Your task to perform on an android device: turn notification dots on Image 0: 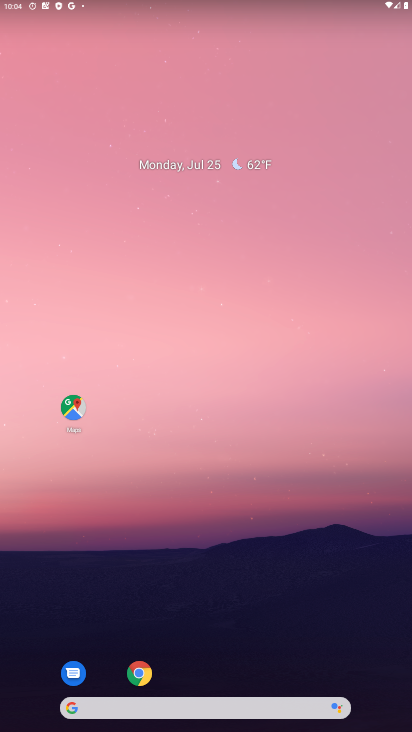
Step 0: drag from (182, 659) to (247, 130)
Your task to perform on an android device: turn notification dots on Image 1: 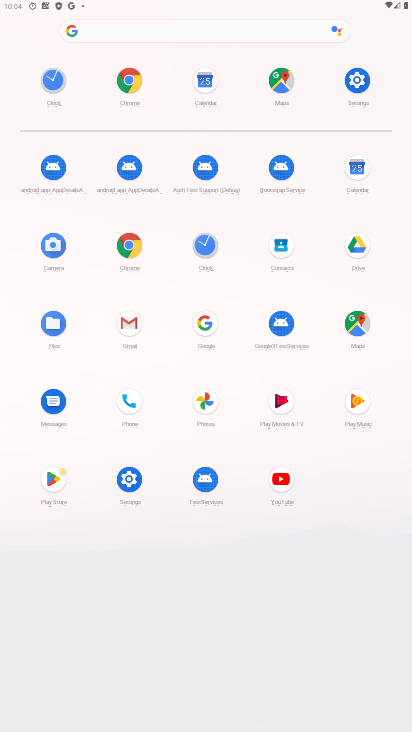
Step 1: click (120, 471)
Your task to perform on an android device: turn notification dots on Image 2: 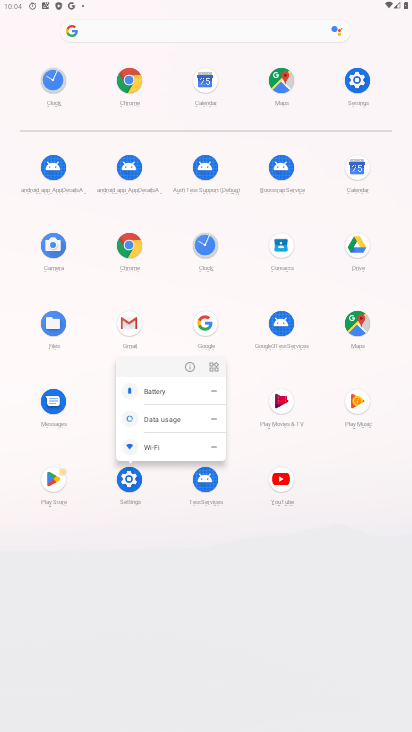
Step 2: click (190, 373)
Your task to perform on an android device: turn notification dots on Image 3: 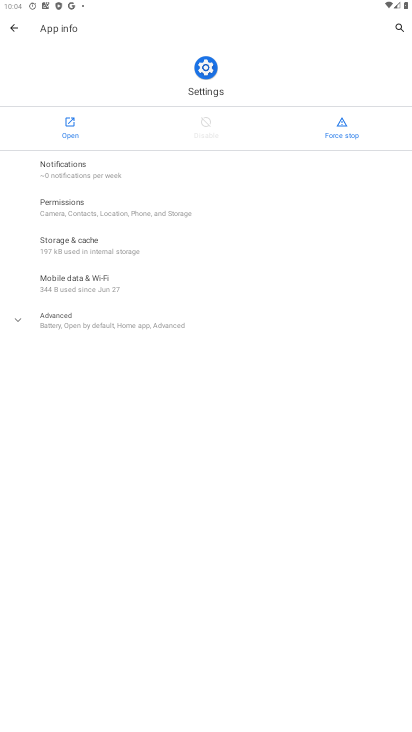
Step 3: click (51, 103)
Your task to perform on an android device: turn notification dots on Image 4: 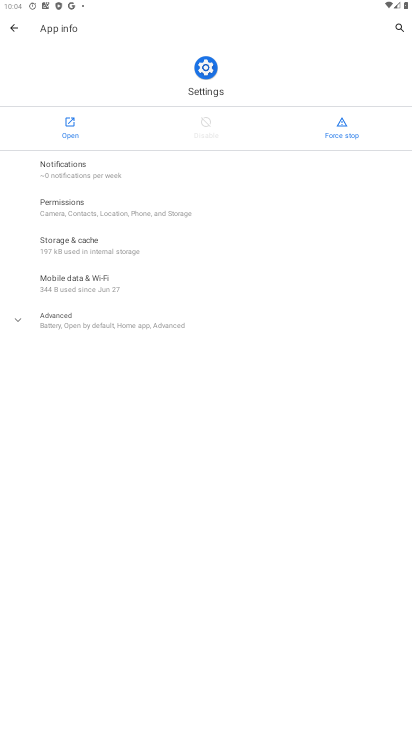
Step 4: click (71, 124)
Your task to perform on an android device: turn notification dots on Image 5: 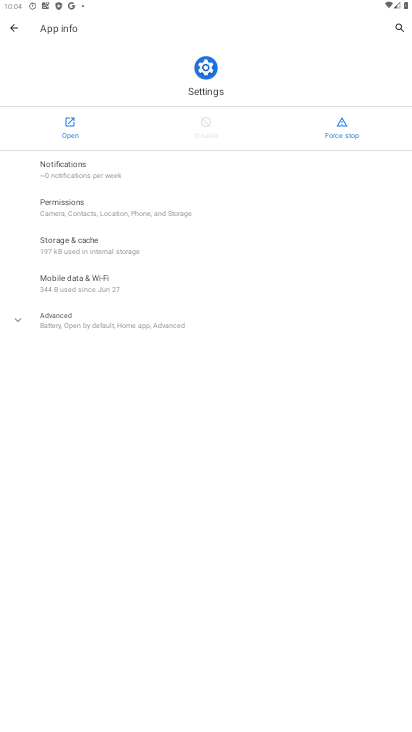
Step 5: click (71, 124)
Your task to perform on an android device: turn notification dots on Image 6: 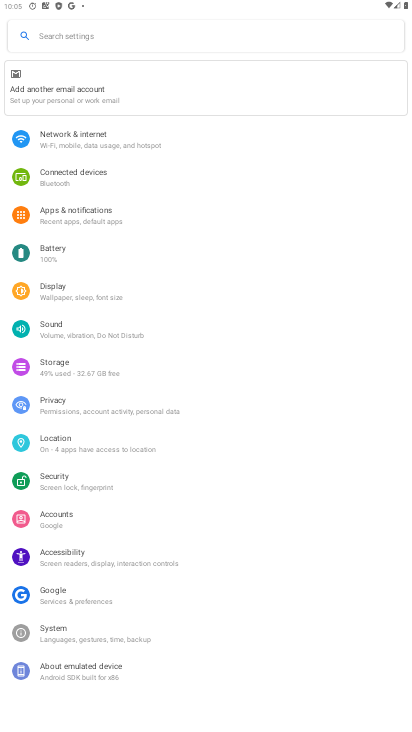
Step 6: click (121, 218)
Your task to perform on an android device: turn notification dots on Image 7: 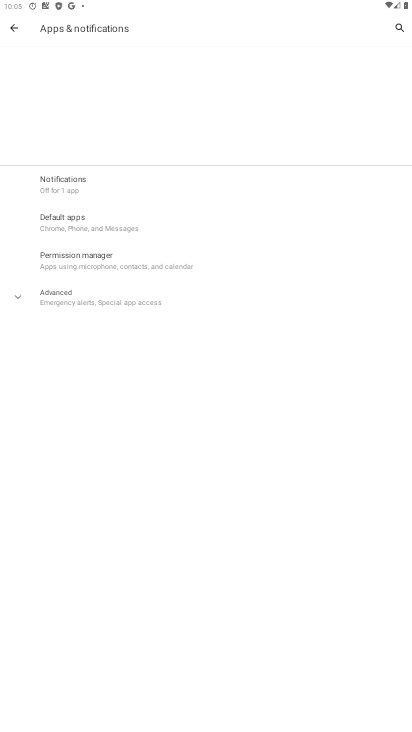
Step 7: click (101, 184)
Your task to perform on an android device: turn notification dots on Image 8: 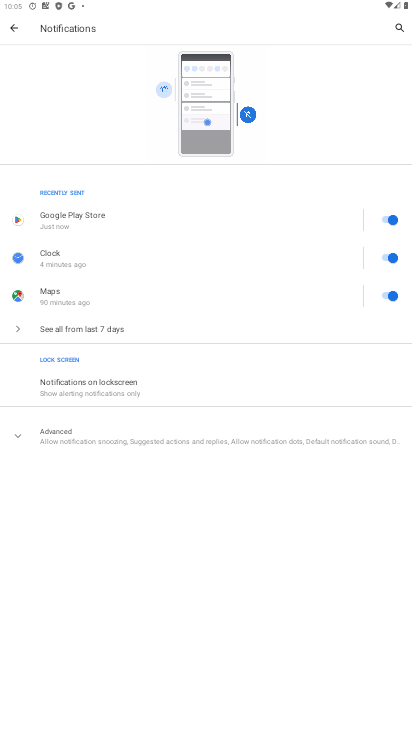
Step 8: click (66, 450)
Your task to perform on an android device: turn notification dots on Image 9: 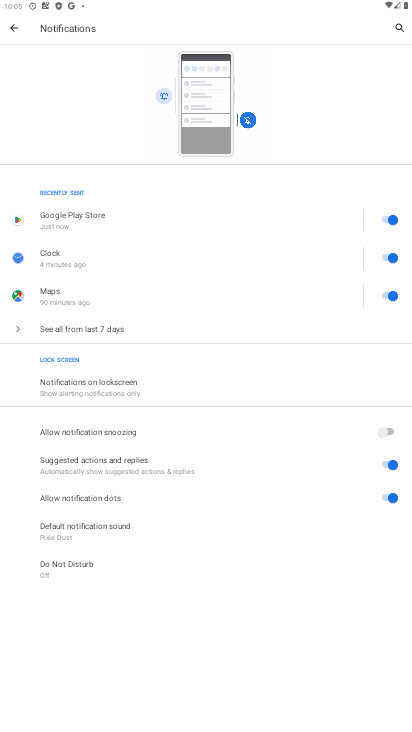
Step 9: task complete